Your task to perform on an android device: delete browsing data in the chrome app Image 0: 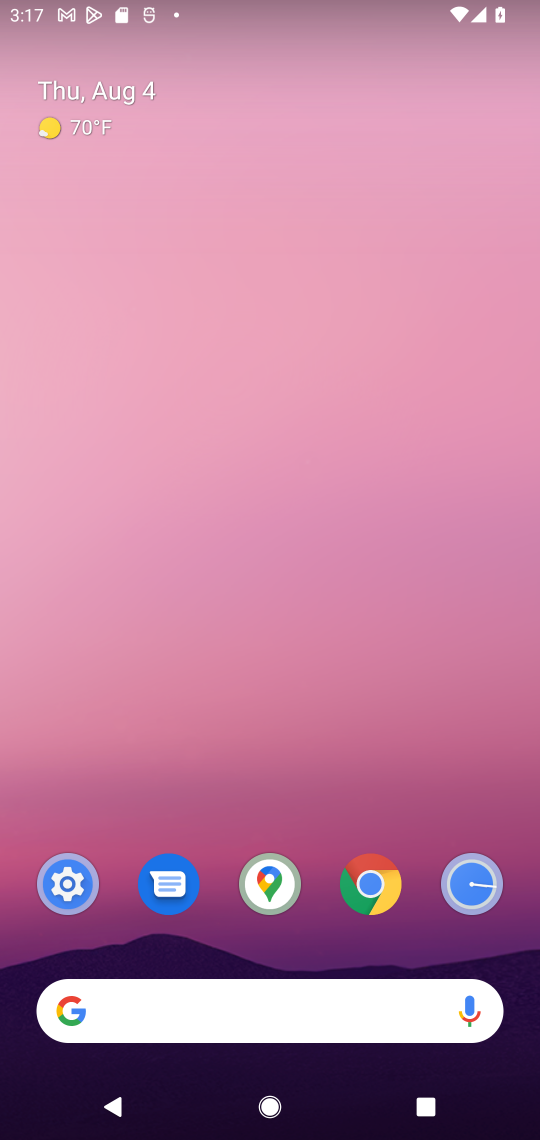
Step 0: click (391, 900)
Your task to perform on an android device: delete browsing data in the chrome app Image 1: 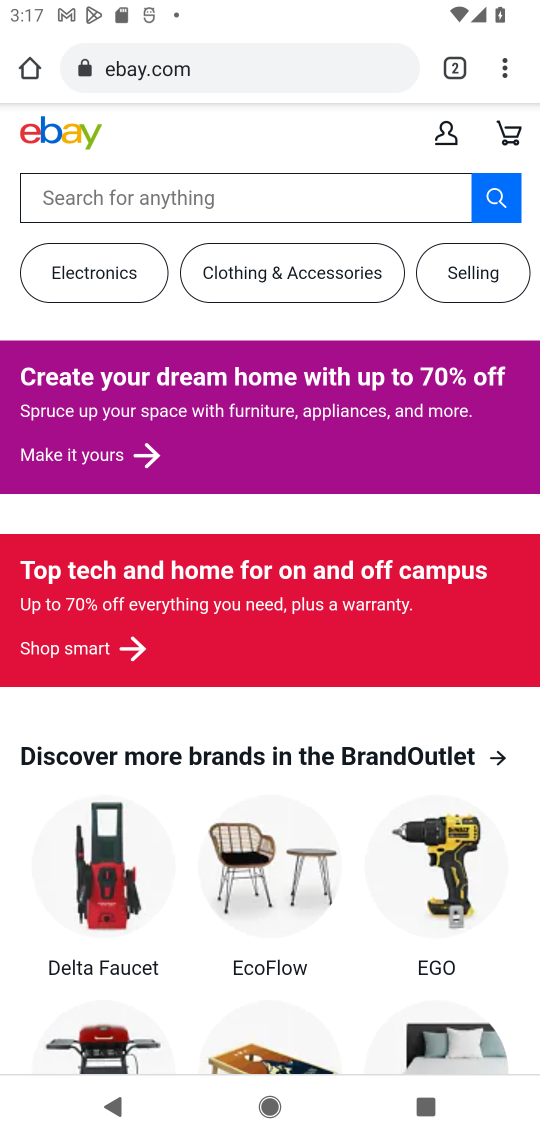
Step 1: click (488, 72)
Your task to perform on an android device: delete browsing data in the chrome app Image 2: 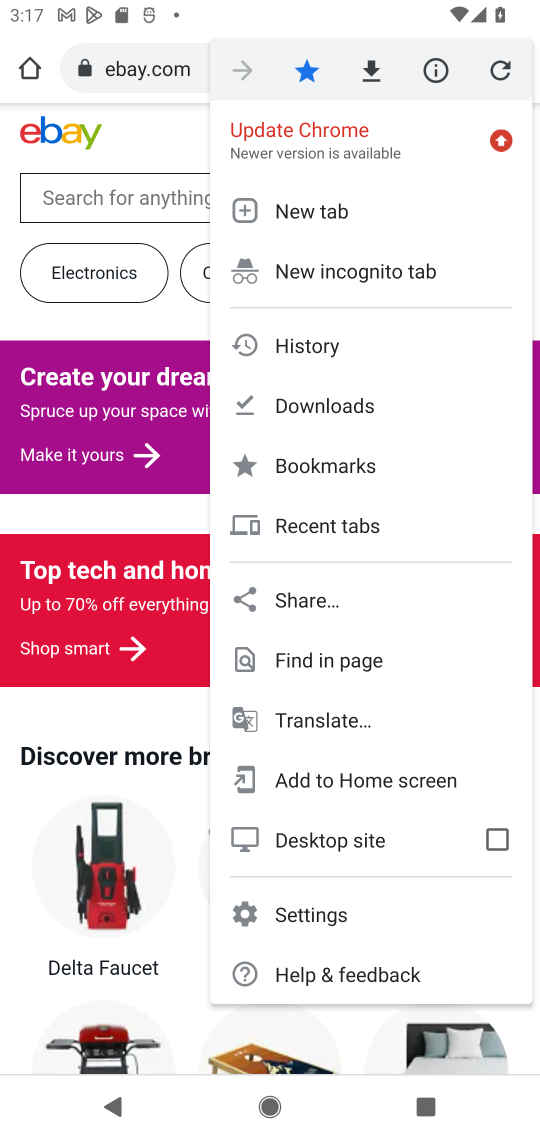
Step 2: click (268, 914)
Your task to perform on an android device: delete browsing data in the chrome app Image 3: 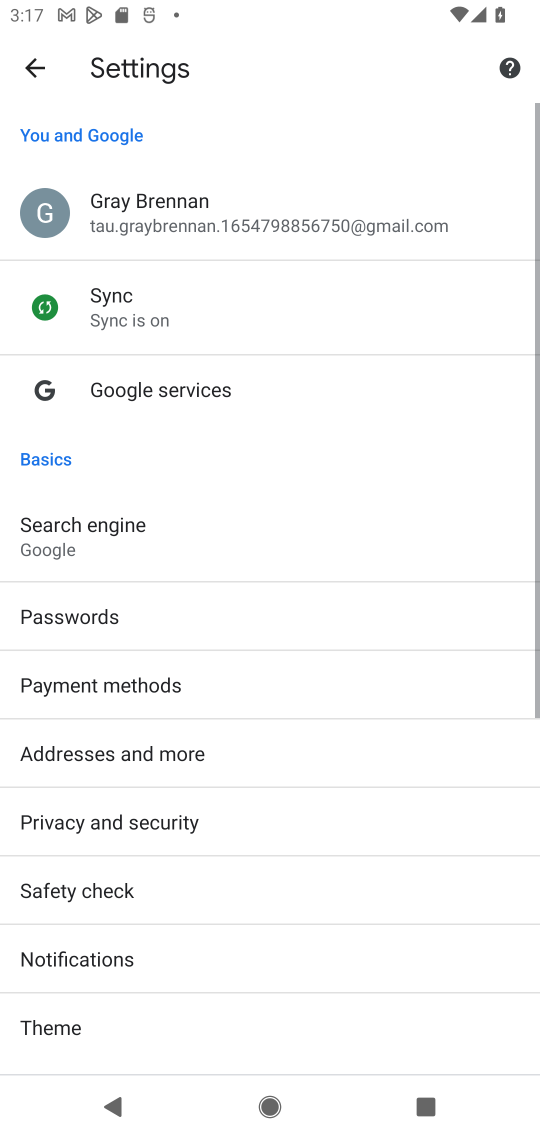
Step 3: task complete